Your task to perform on an android device: What is the recent news? Image 0: 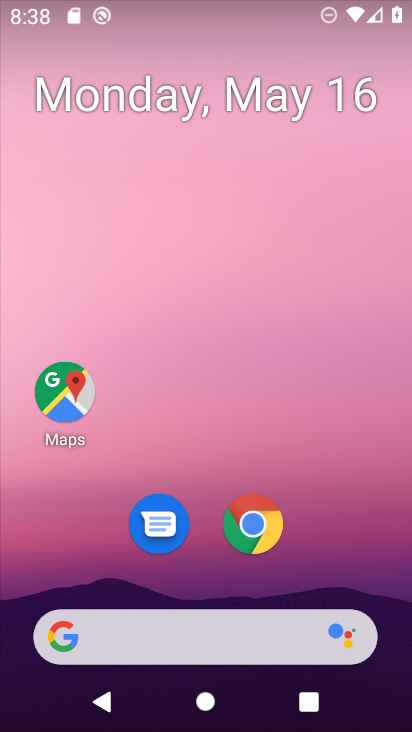
Step 0: click (251, 624)
Your task to perform on an android device: What is the recent news? Image 1: 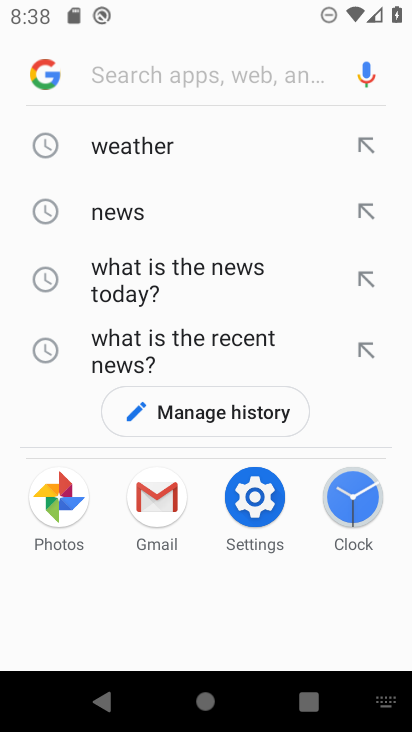
Step 1: click (102, 199)
Your task to perform on an android device: What is the recent news? Image 2: 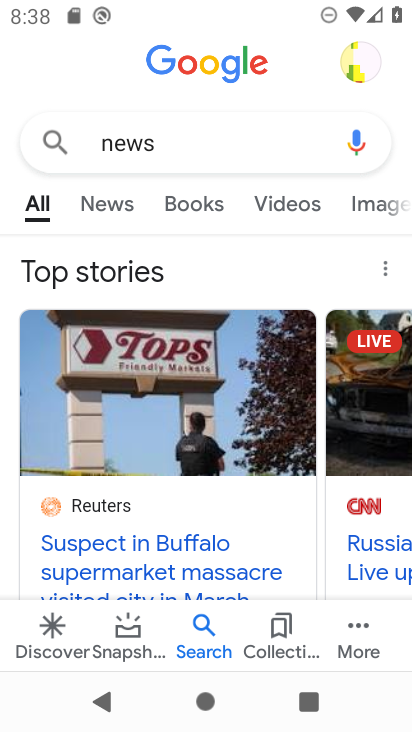
Step 2: click (109, 199)
Your task to perform on an android device: What is the recent news? Image 3: 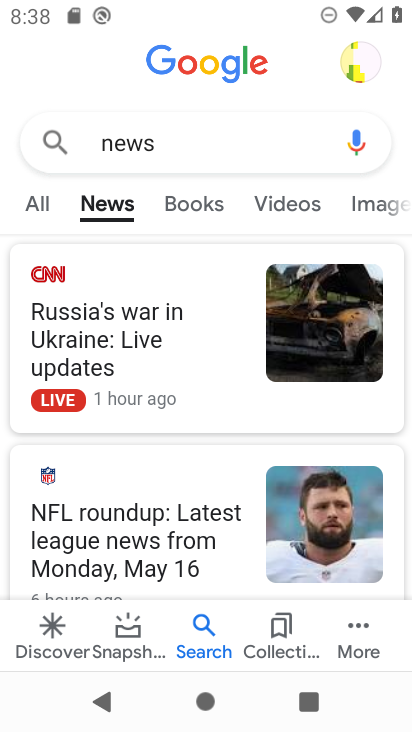
Step 3: task complete